Your task to perform on an android device: What's the weather going to be tomorrow? Image 0: 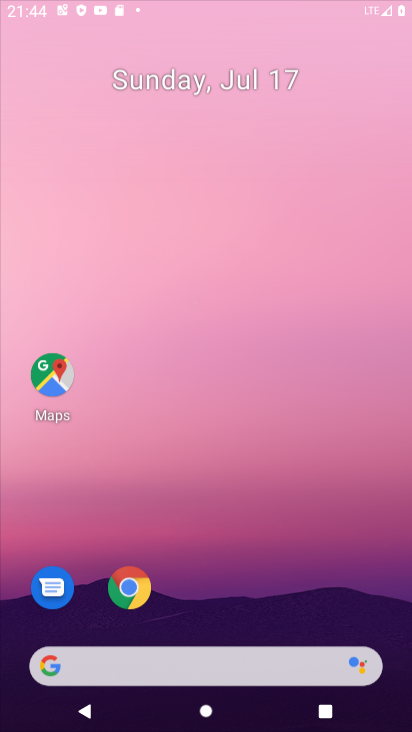
Step 0: press home button
Your task to perform on an android device: What's the weather going to be tomorrow? Image 1: 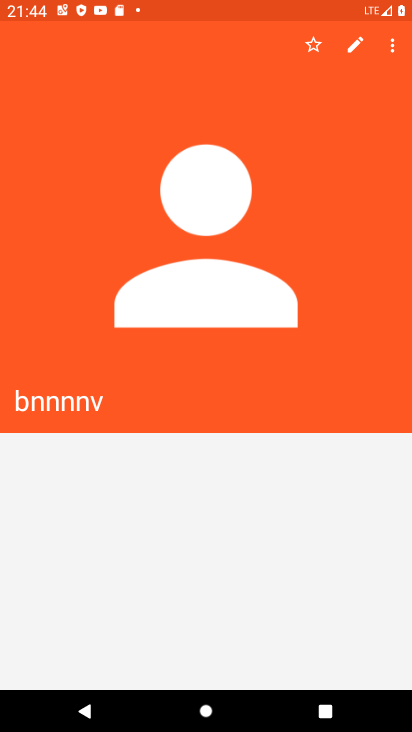
Step 1: drag from (276, 595) to (267, 44)
Your task to perform on an android device: What's the weather going to be tomorrow? Image 2: 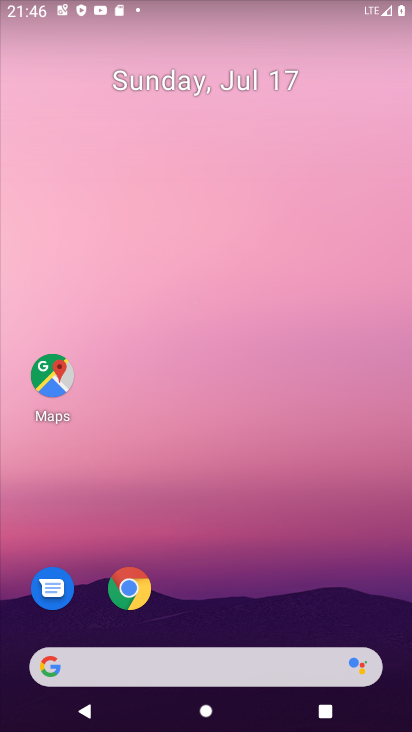
Step 2: click (134, 605)
Your task to perform on an android device: What's the weather going to be tomorrow? Image 3: 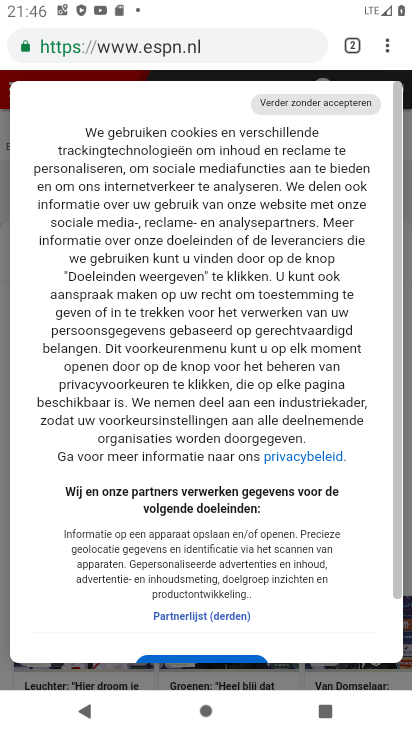
Step 3: click (238, 53)
Your task to perform on an android device: What's the weather going to be tomorrow? Image 4: 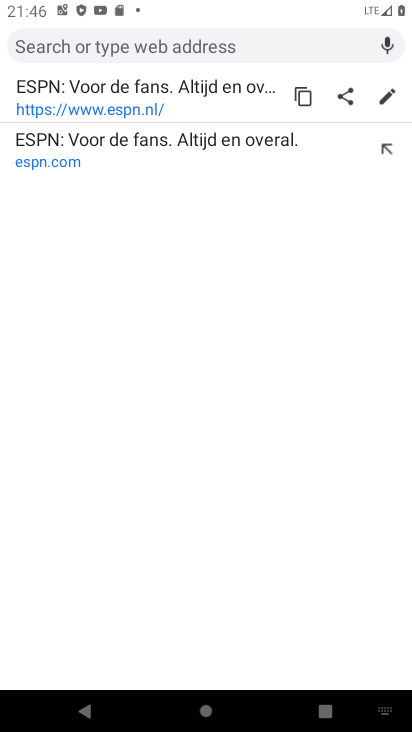
Step 4: type "What's the weather going to be tomorrow?"
Your task to perform on an android device: What's the weather going to be tomorrow? Image 5: 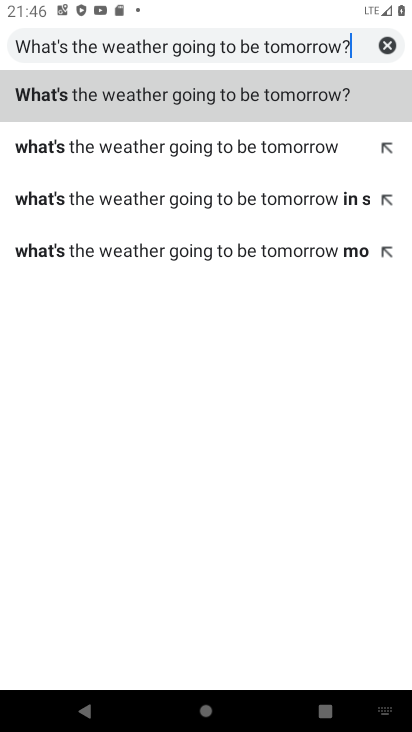
Step 5: type ""
Your task to perform on an android device: What's the weather going to be tomorrow? Image 6: 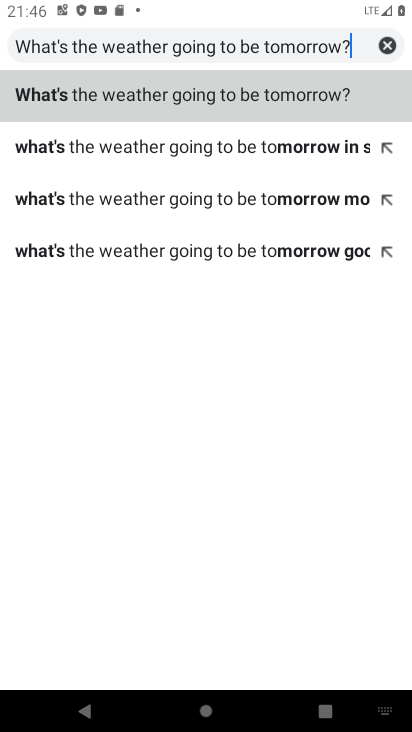
Step 6: click (191, 92)
Your task to perform on an android device: What's the weather going to be tomorrow? Image 7: 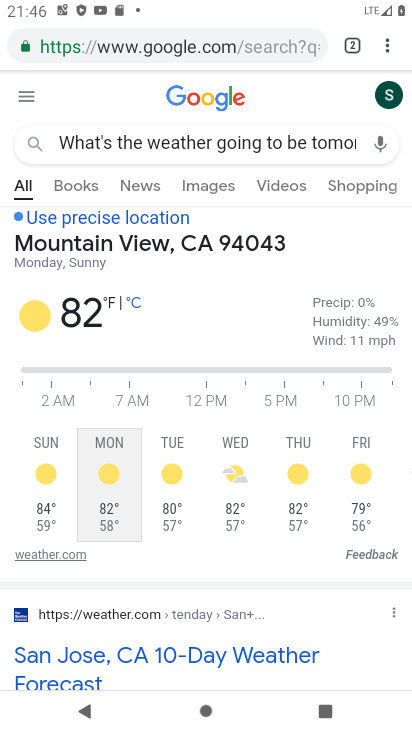
Step 7: task complete